Your task to perform on an android device: Search for a dining table on Crate & Barrel Image 0: 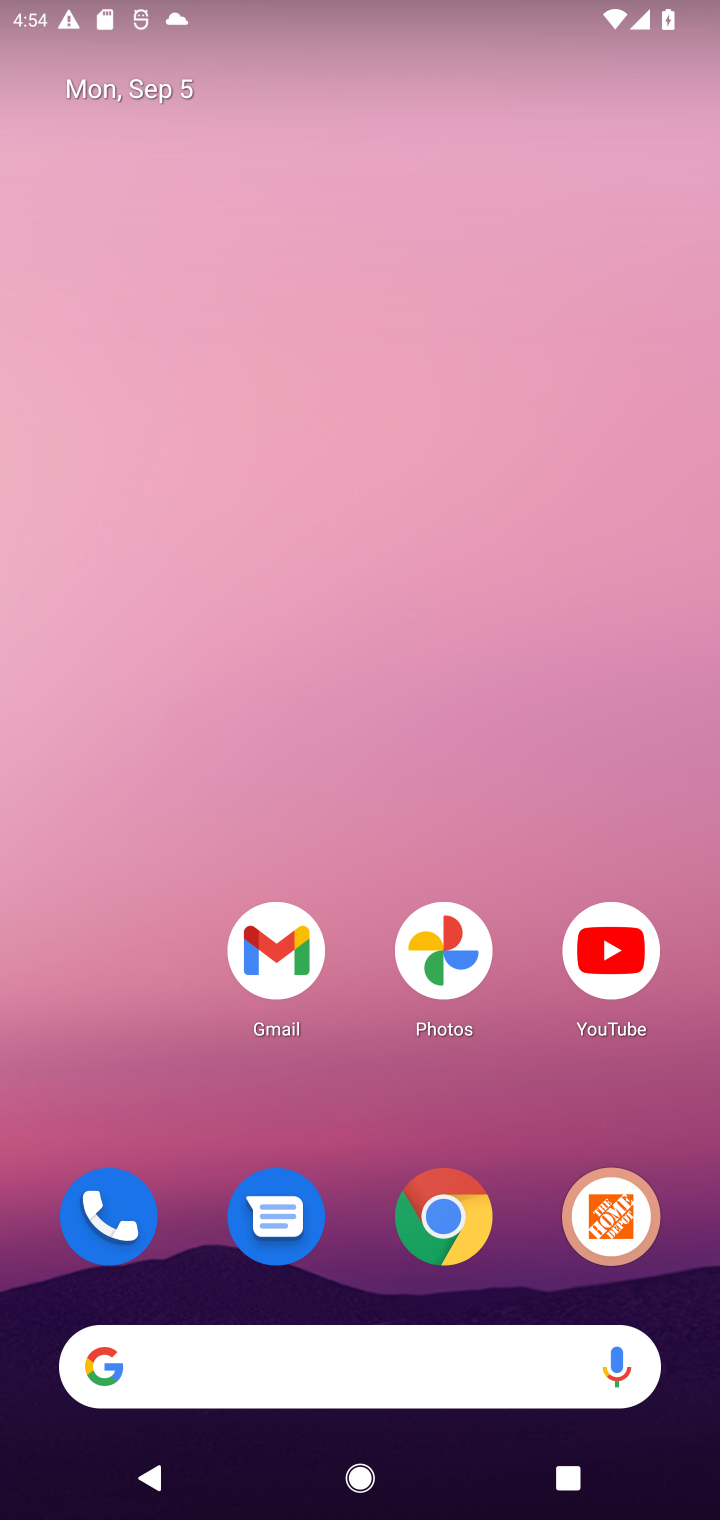
Step 0: press home button
Your task to perform on an android device: Search for a dining table on Crate & Barrel Image 1: 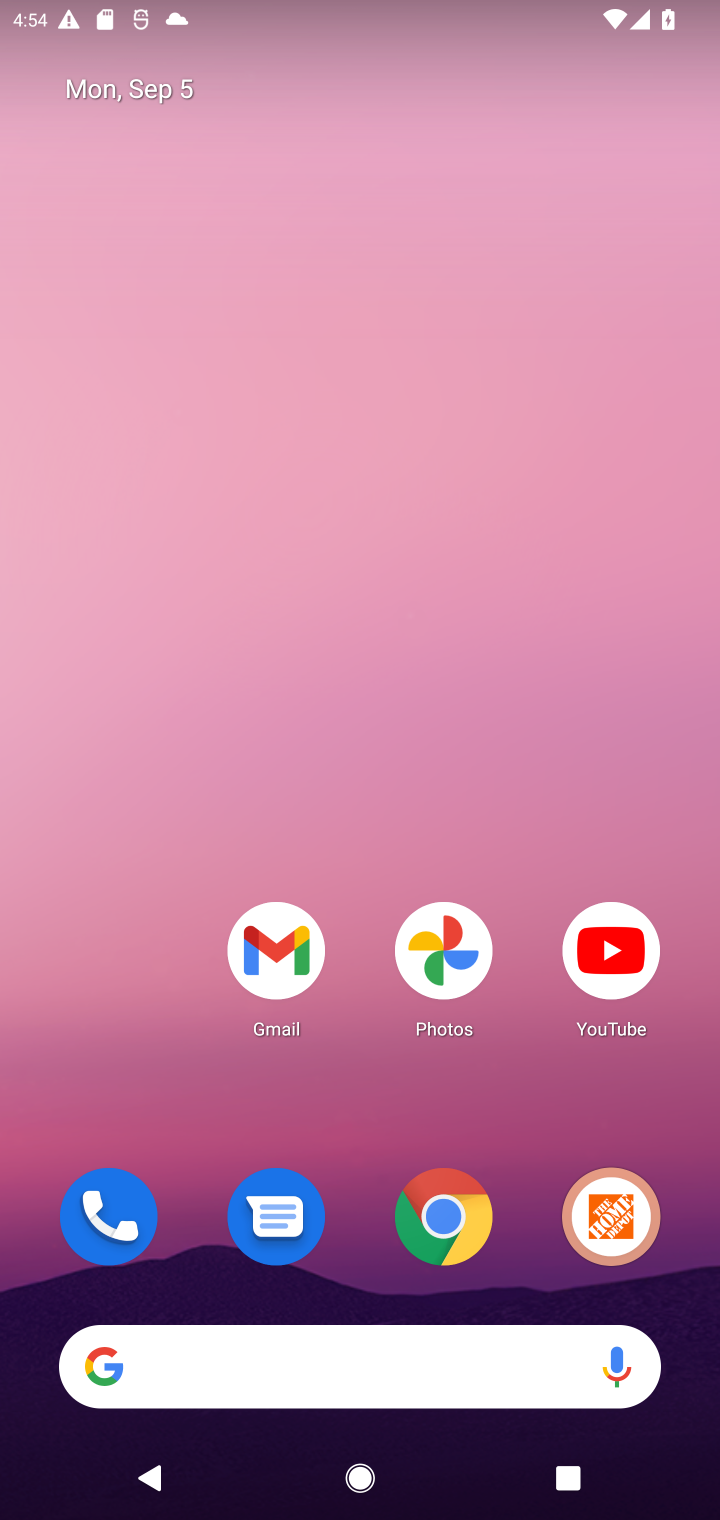
Step 1: click (92, 1364)
Your task to perform on an android device: Search for a dining table on Crate & Barrel Image 2: 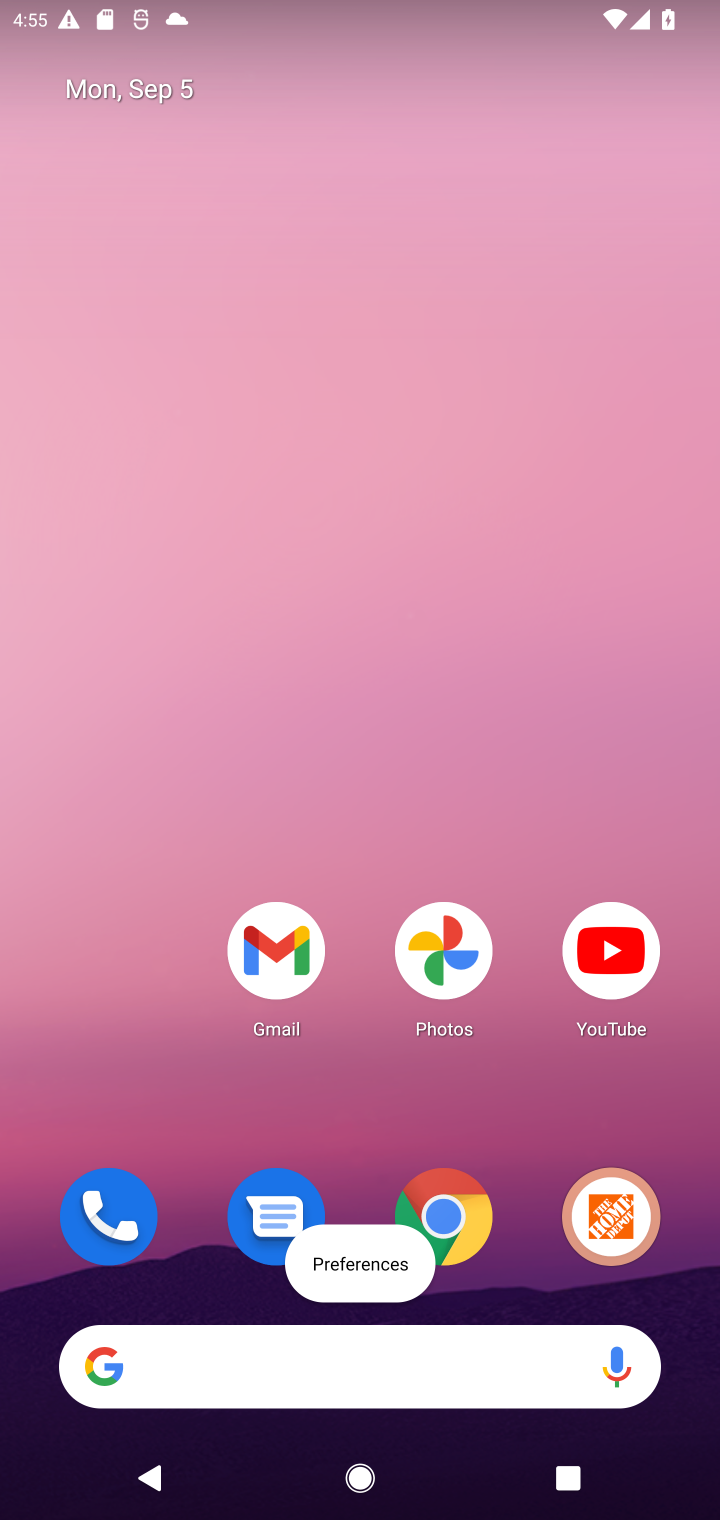
Step 2: click (92, 1364)
Your task to perform on an android device: Search for a dining table on Crate & Barrel Image 3: 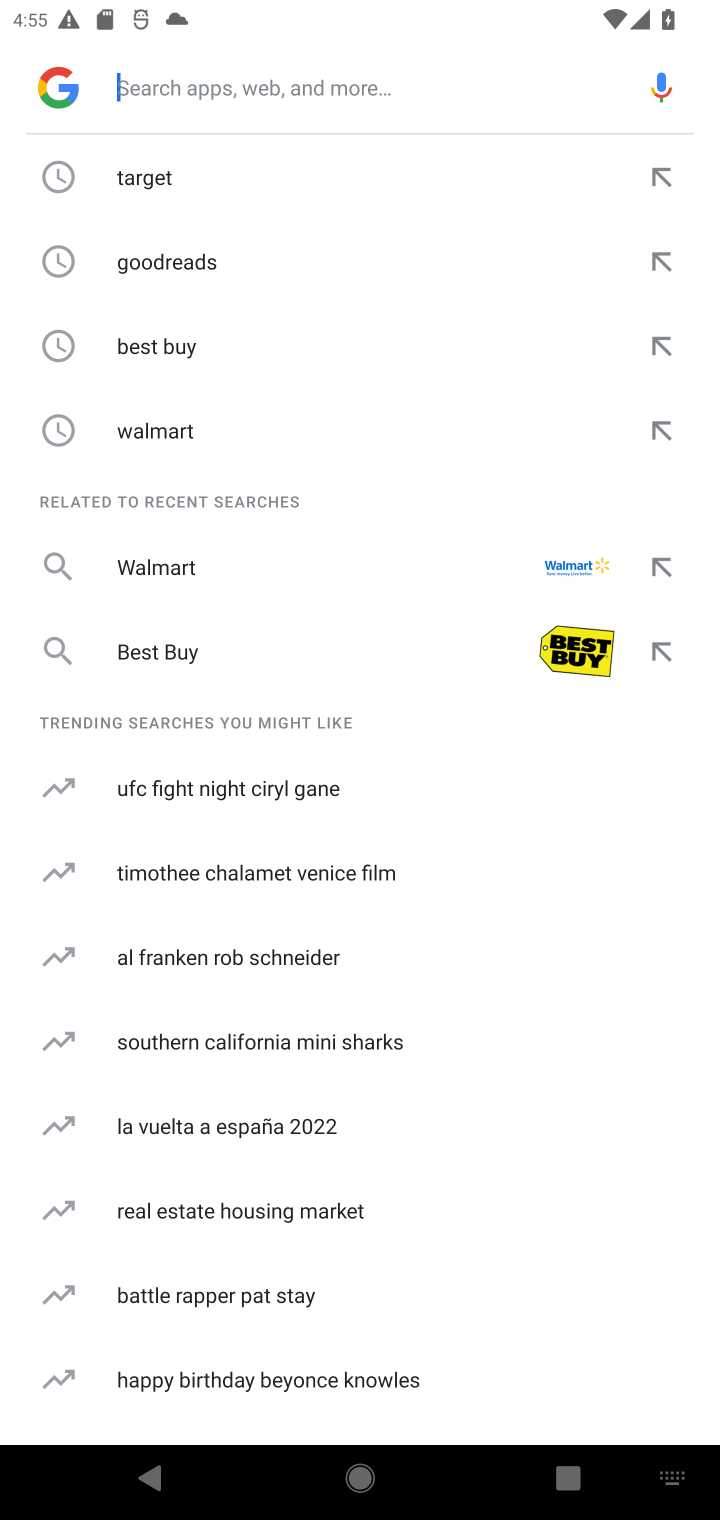
Step 3: click (92, 1364)
Your task to perform on an android device: Search for a dining table on Crate & Barrel Image 4: 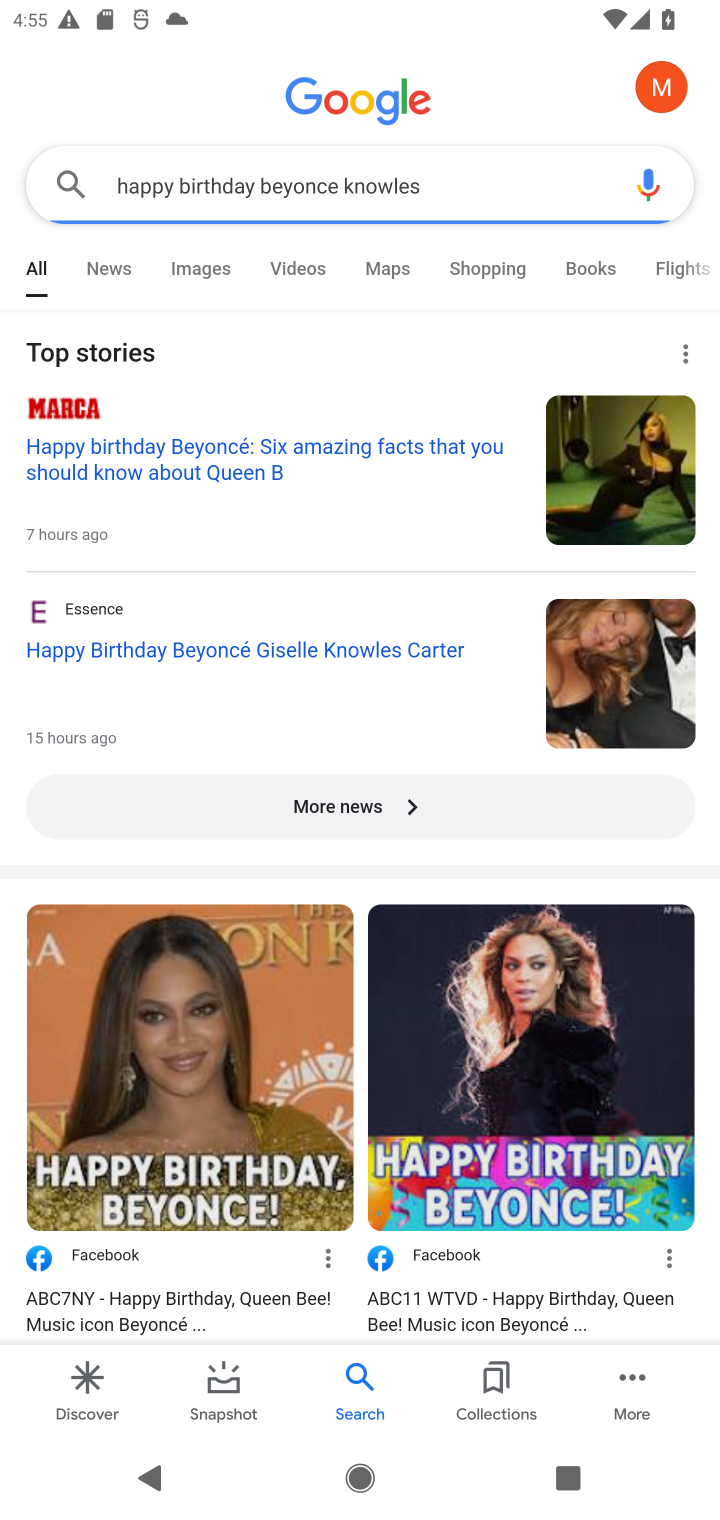
Step 4: press back button
Your task to perform on an android device: Search for a dining table on Crate & Barrel Image 5: 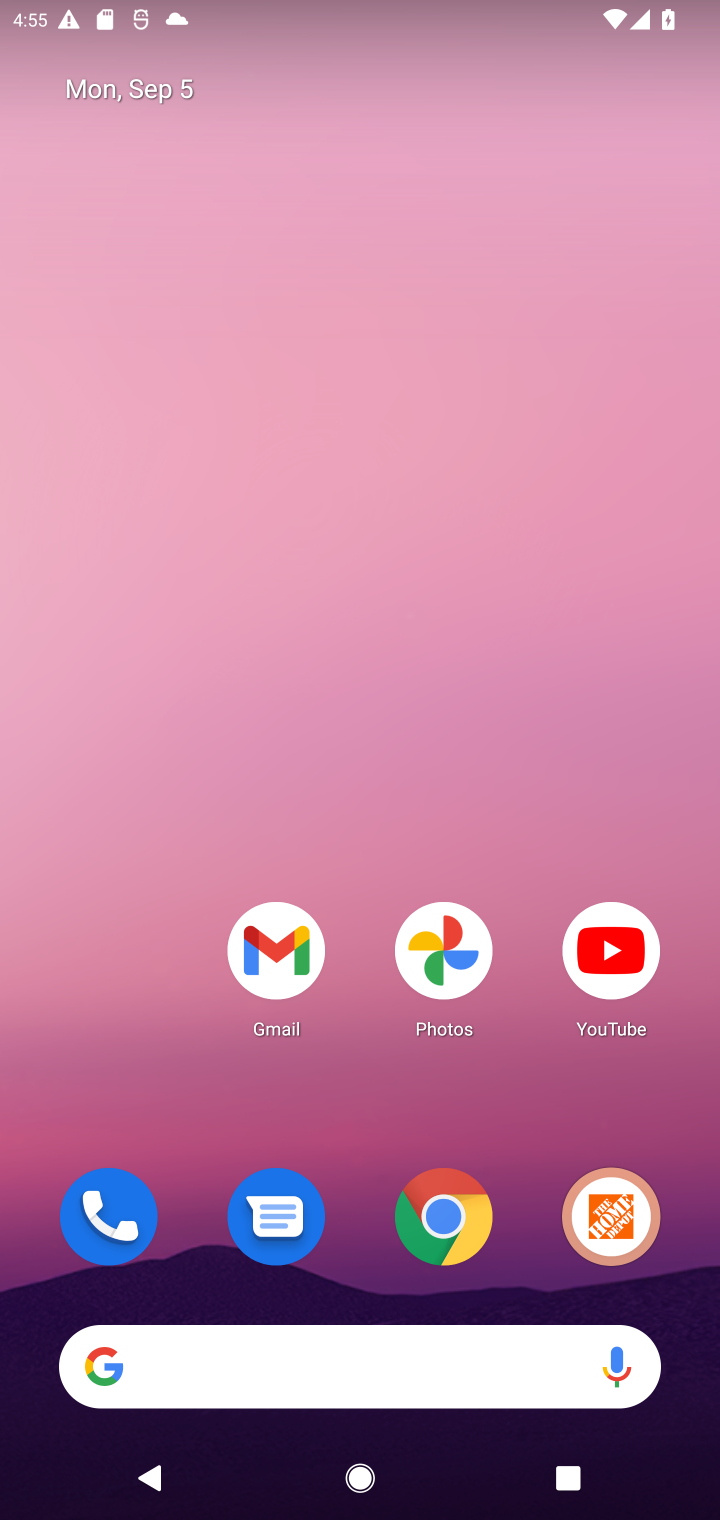
Step 5: click (94, 1364)
Your task to perform on an android device: Search for a dining table on Crate & Barrel Image 6: 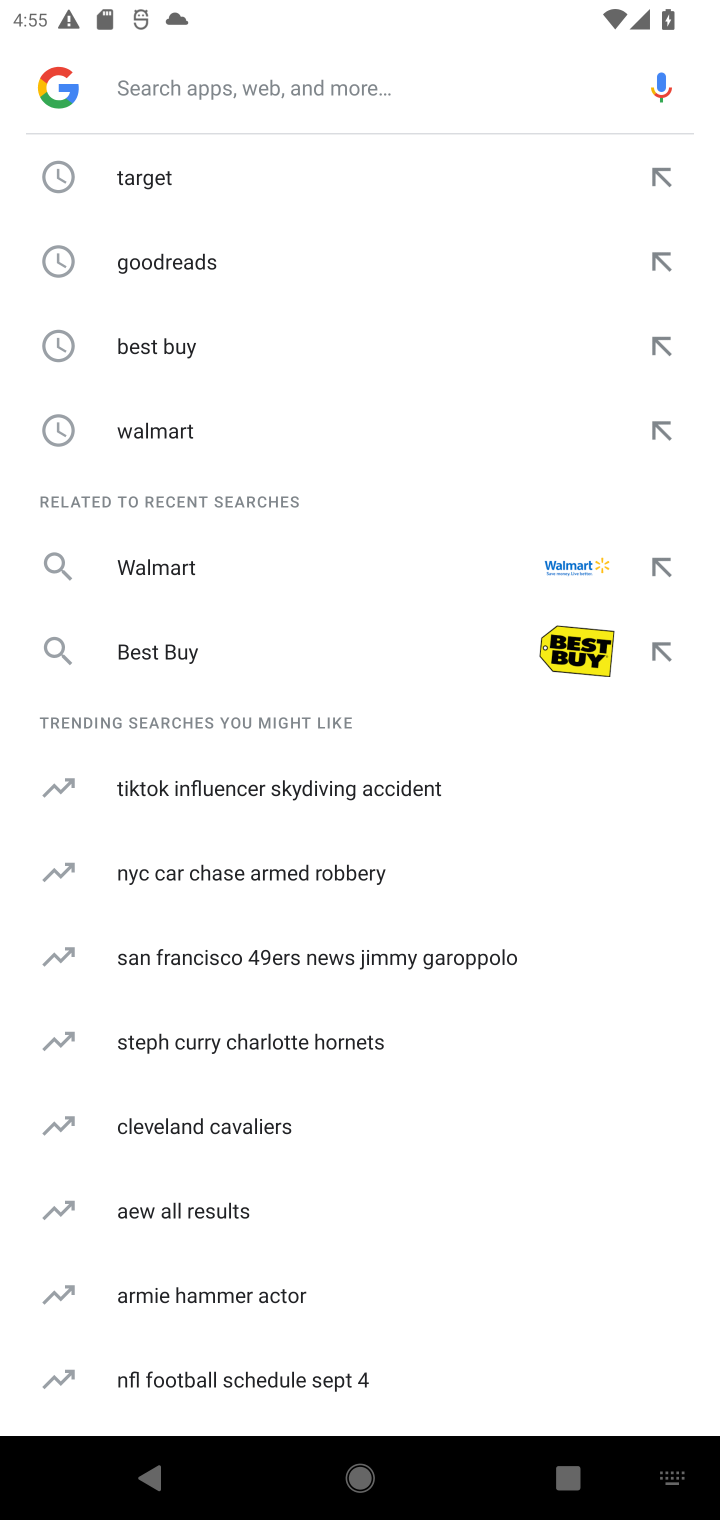
Step 6: type "dining table"
Your task to perform on an android device: Search for a dining table on Crate & Barrel Image 7: 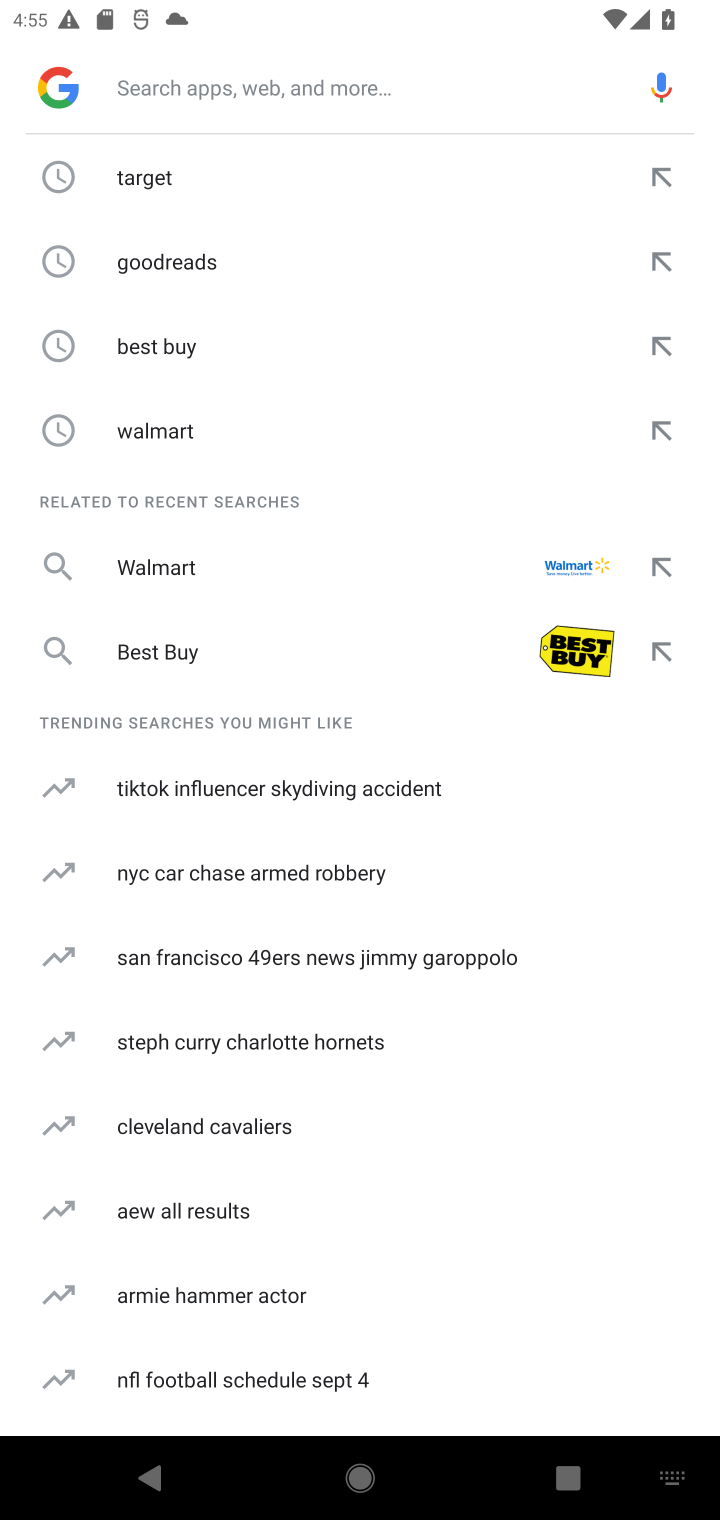
Step 7: click (189, 88)
Your task to perform on an android device: Search for a dining table on Crate & Barrel Image 8: 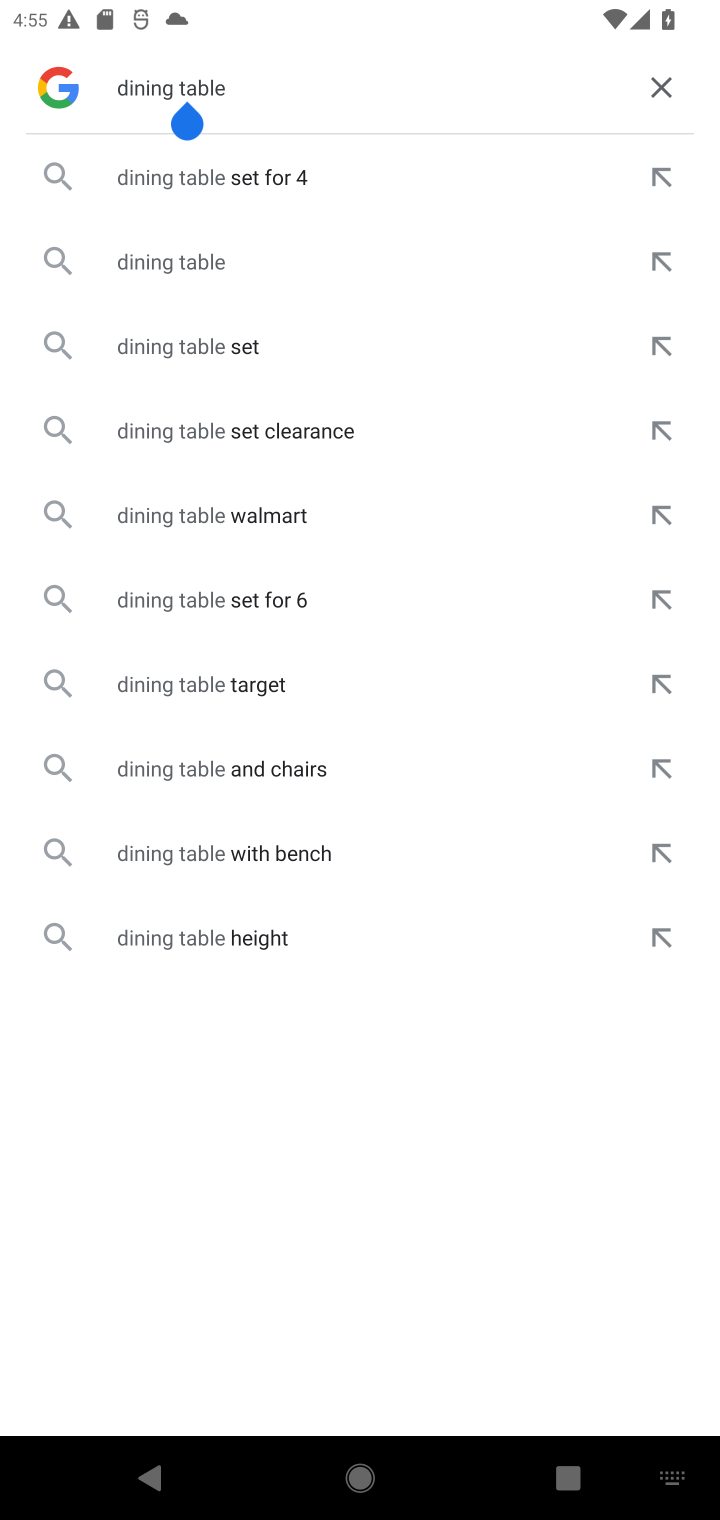
Step 8: press enter
Your task to perform on an android device: Search for a dining table on Crate & Barrel Image 9: 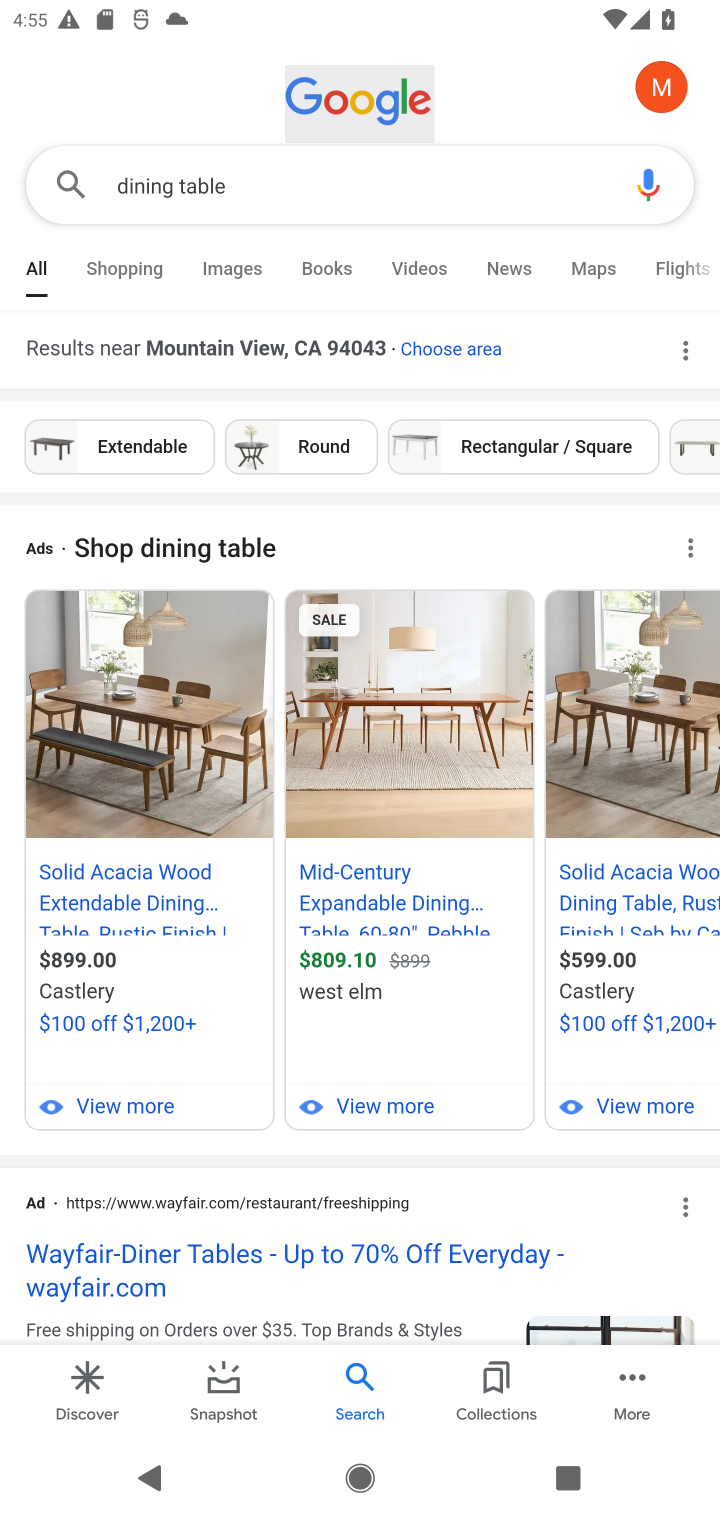
Step 9: drag from (540, 1208) to (282, 701)
Your task to perform on an android device: Search for a dining table on Crate & Barrel Image 10: 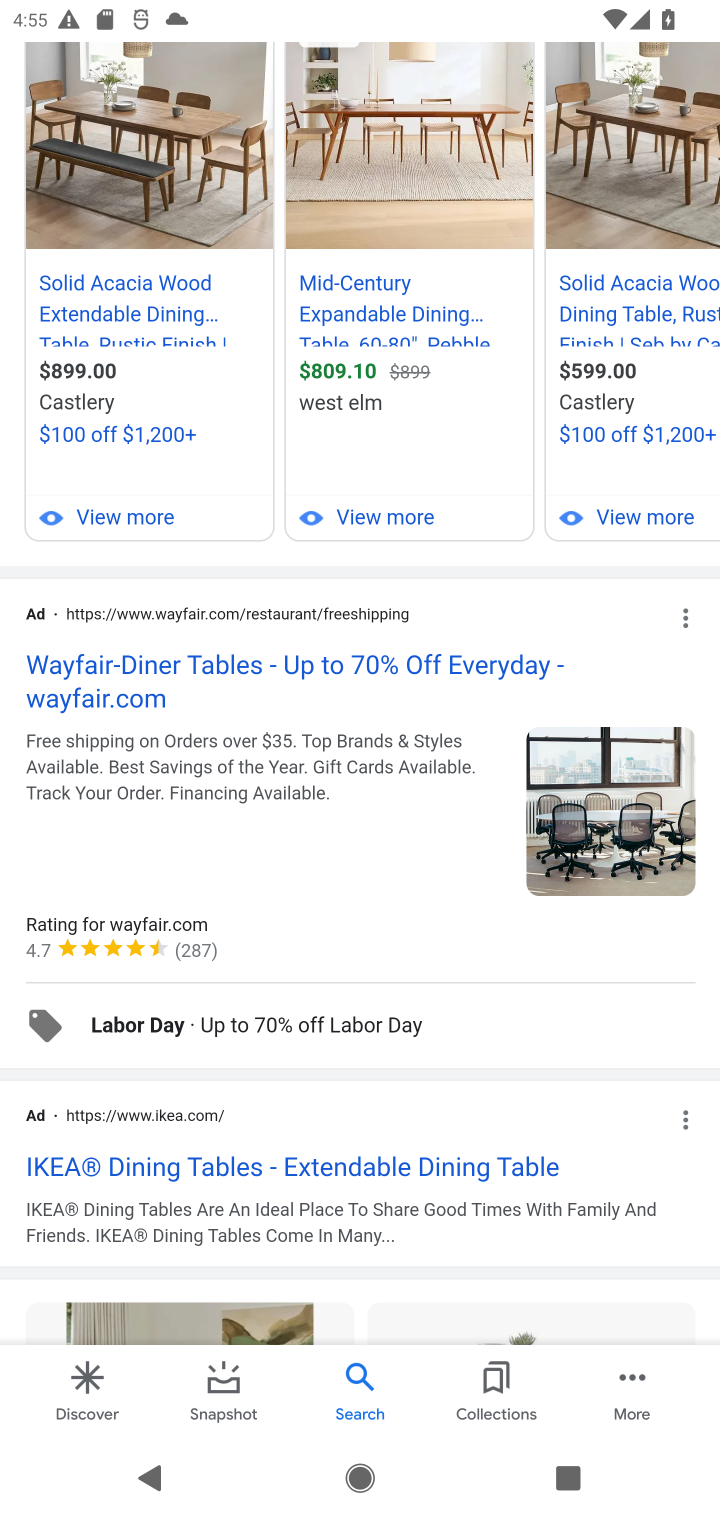
Step 10: drag from (368, 486) to (328, 78)
Your task to perform on an android device: Search for a dining table on Crate & Barrel Image 11: 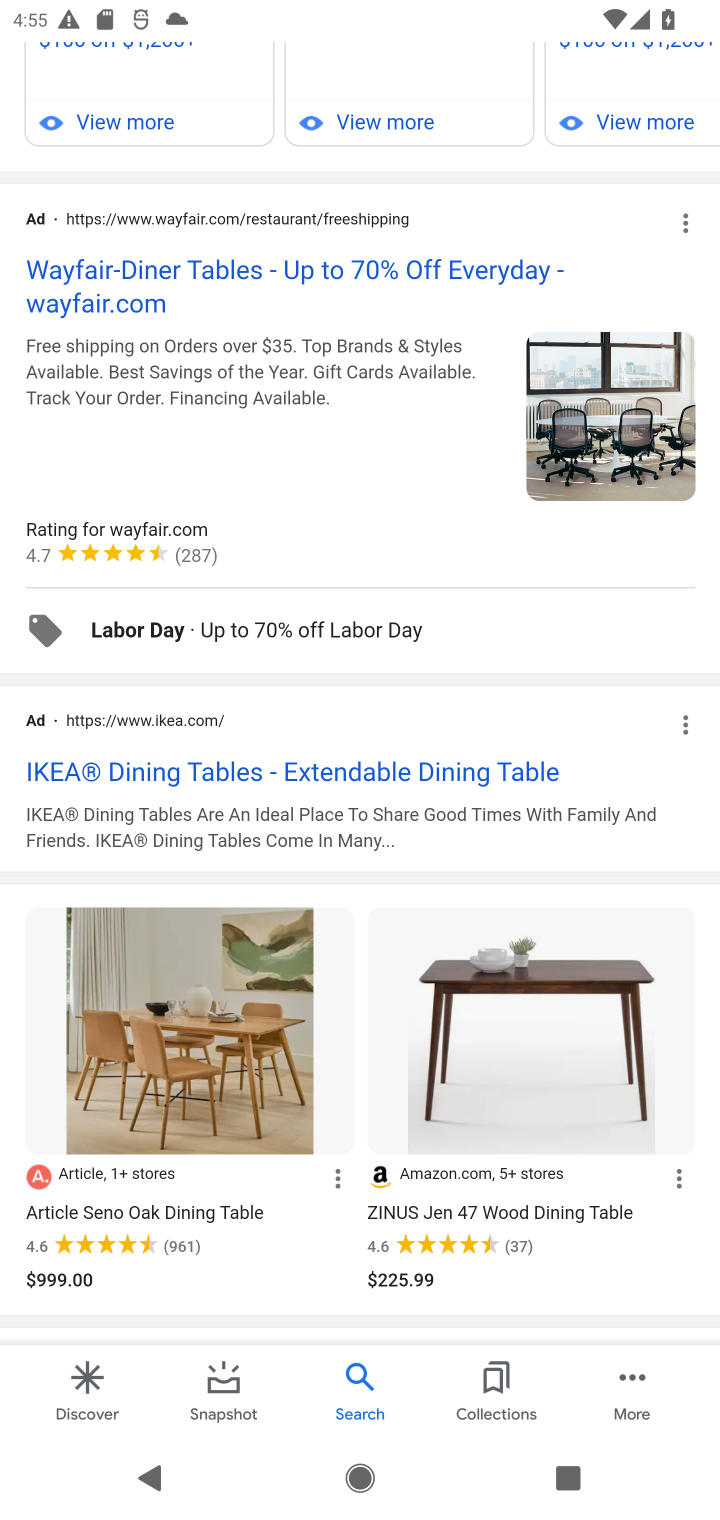
Step 11: click (332, 90)
Your task to perform on an android device: Search for a dining table on Crate & Barrel Image 12: 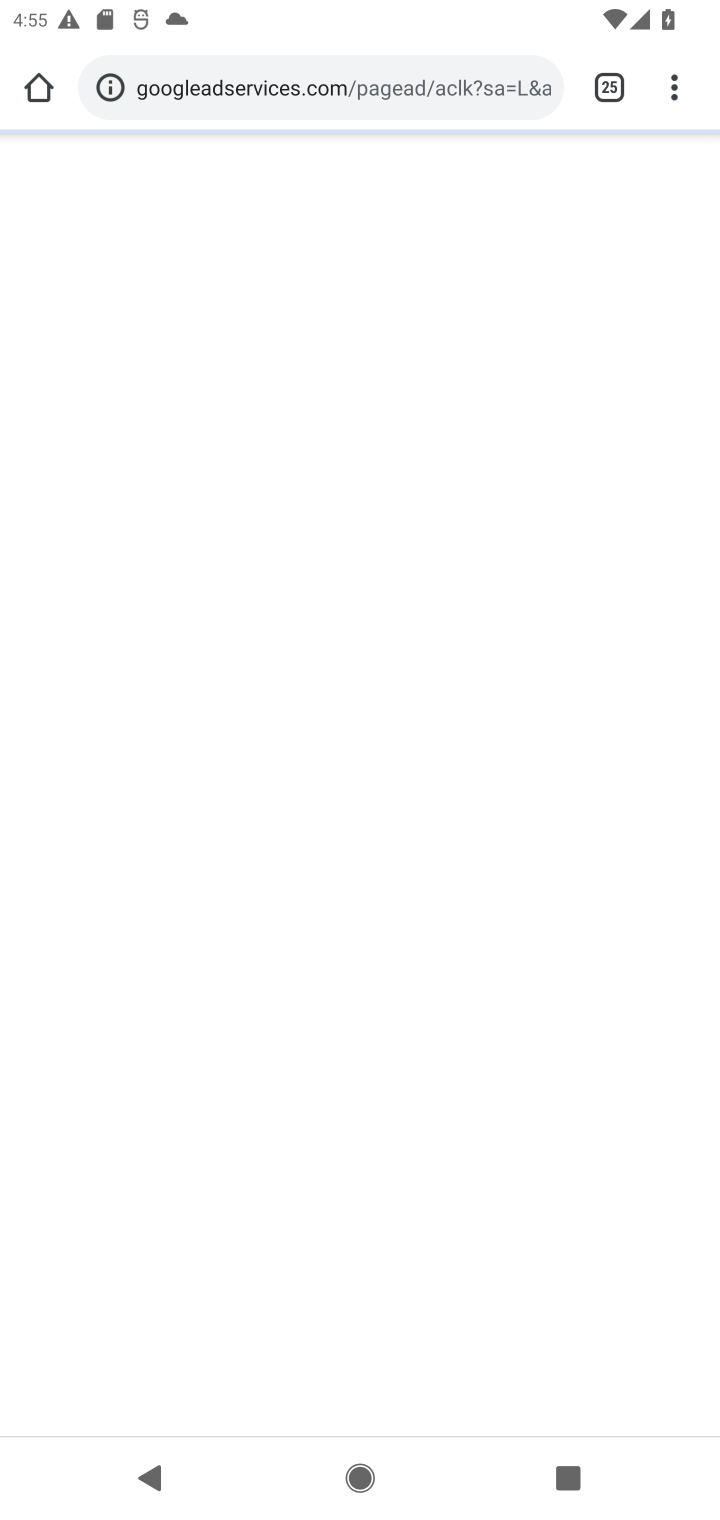
Step 12: press back button
Your task to perform on an android device: Search for a dining table on Crate & Barrel Image 13: 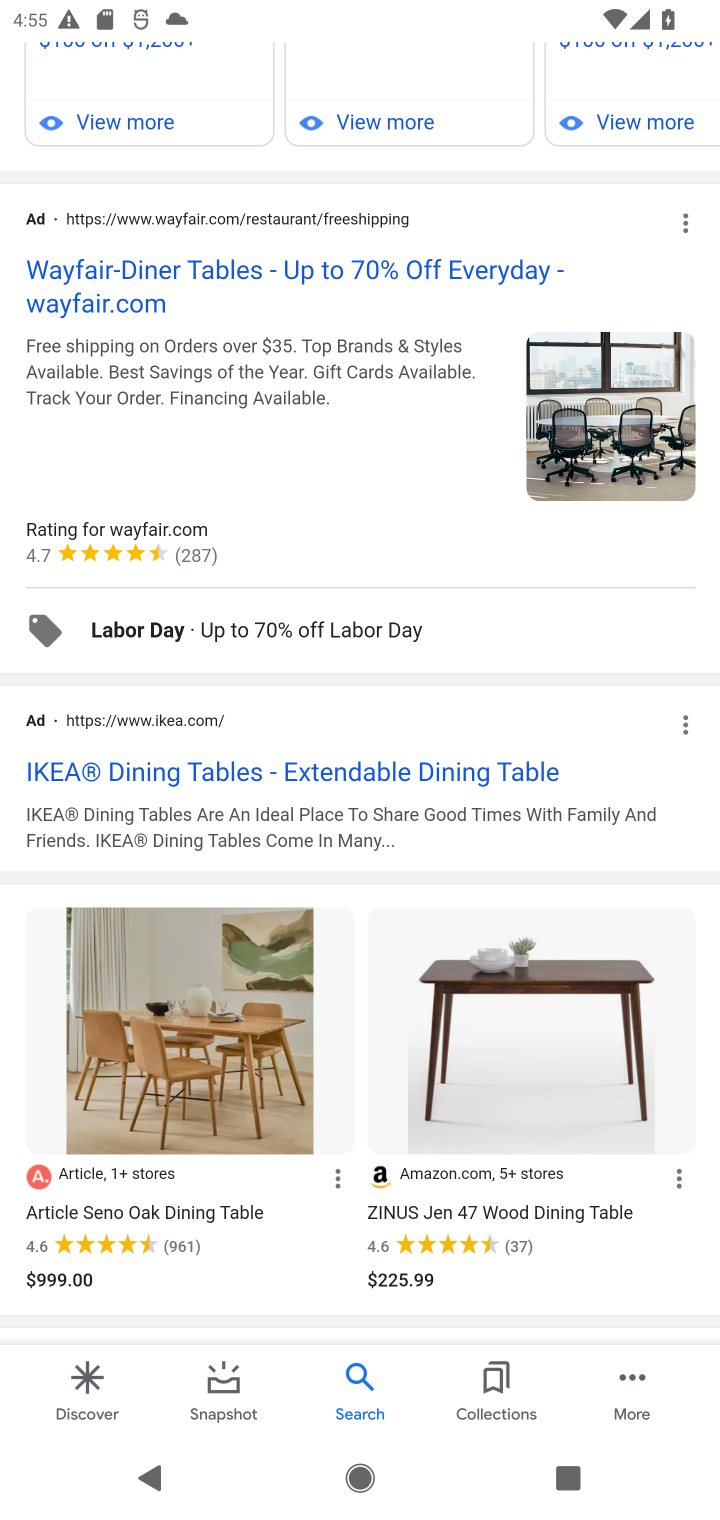
Step 13: click (365, 115)
Your task to perform on an android device: Search for a dining table on Crate & Barrel Image 14: 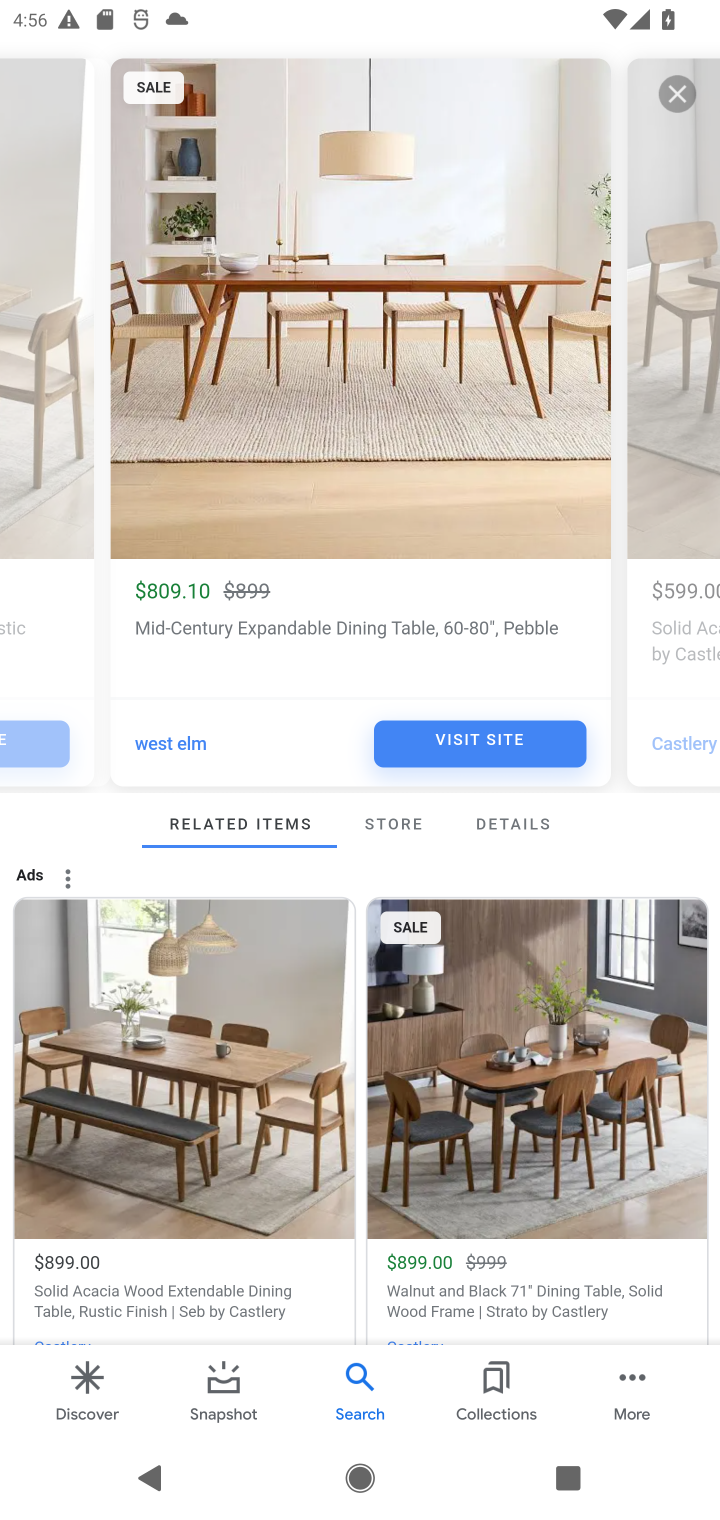
Step 14: press back button
Your task to perform on an android device: Search for a dining table on Crate & Barrel Image 15: 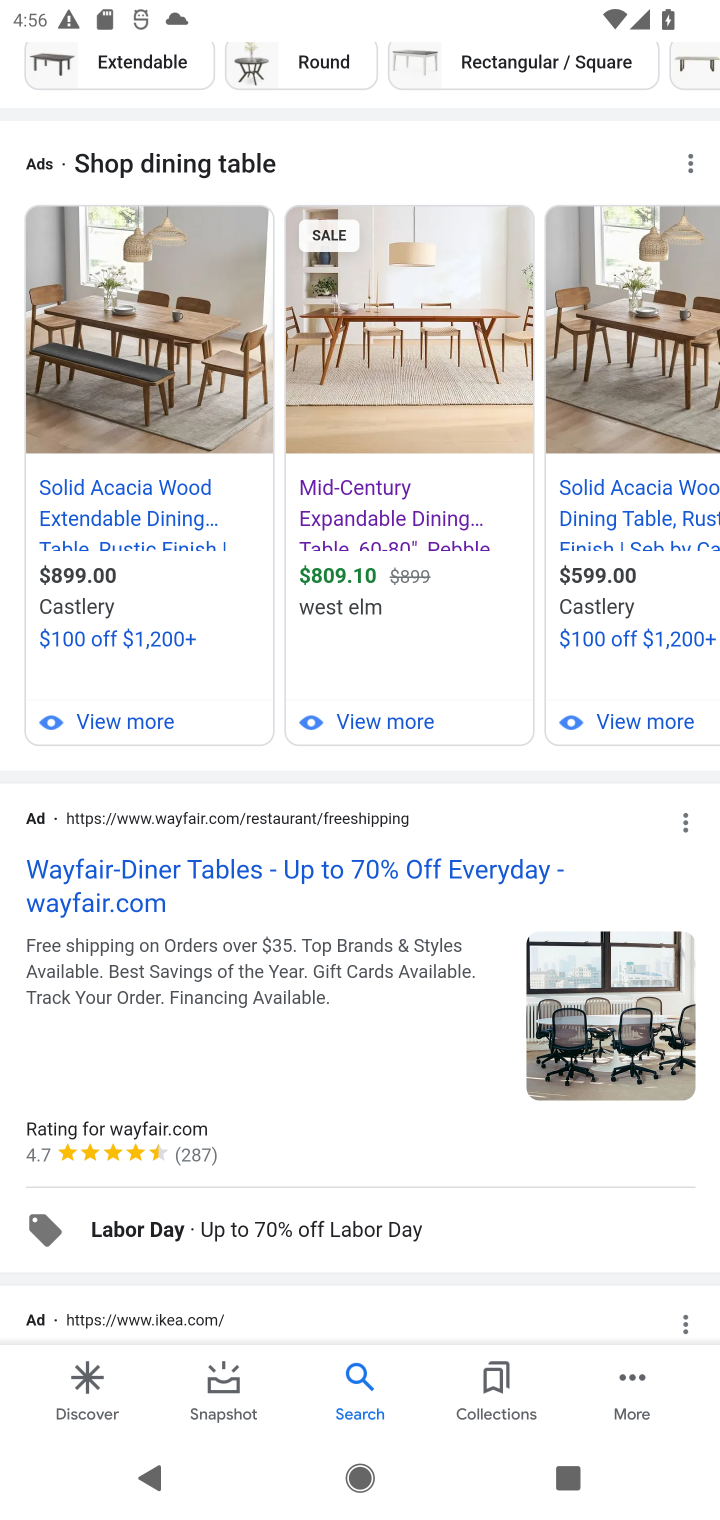
Step 15: drag from (285, 1136) to (259, 552)
Your task to perform on an android device: Search for a dining table on Crate & Barrel Image 16: 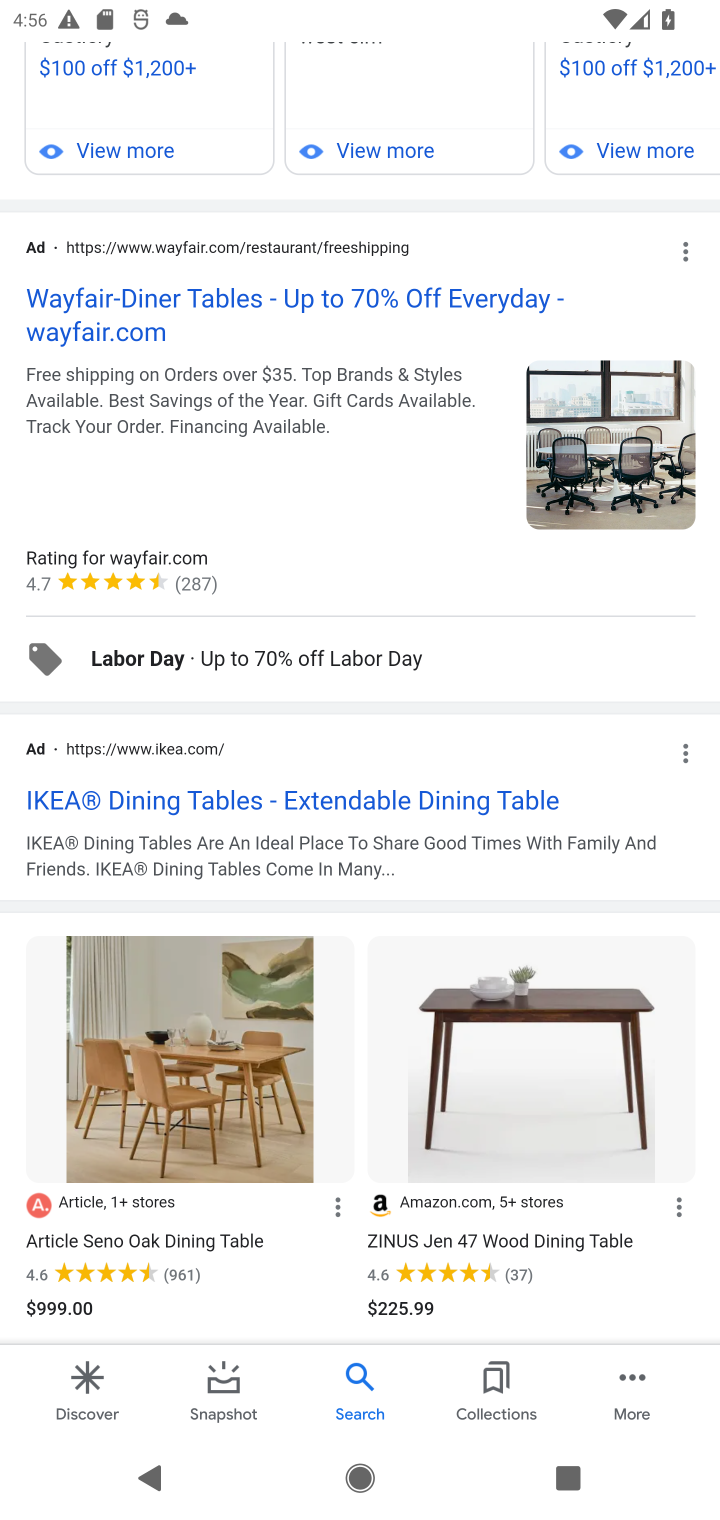
Step 16: drag from (303, 475) to (332, 1415)
Your task to perform on an android device: Search for a dining table on Crate & Barrel Image 17: 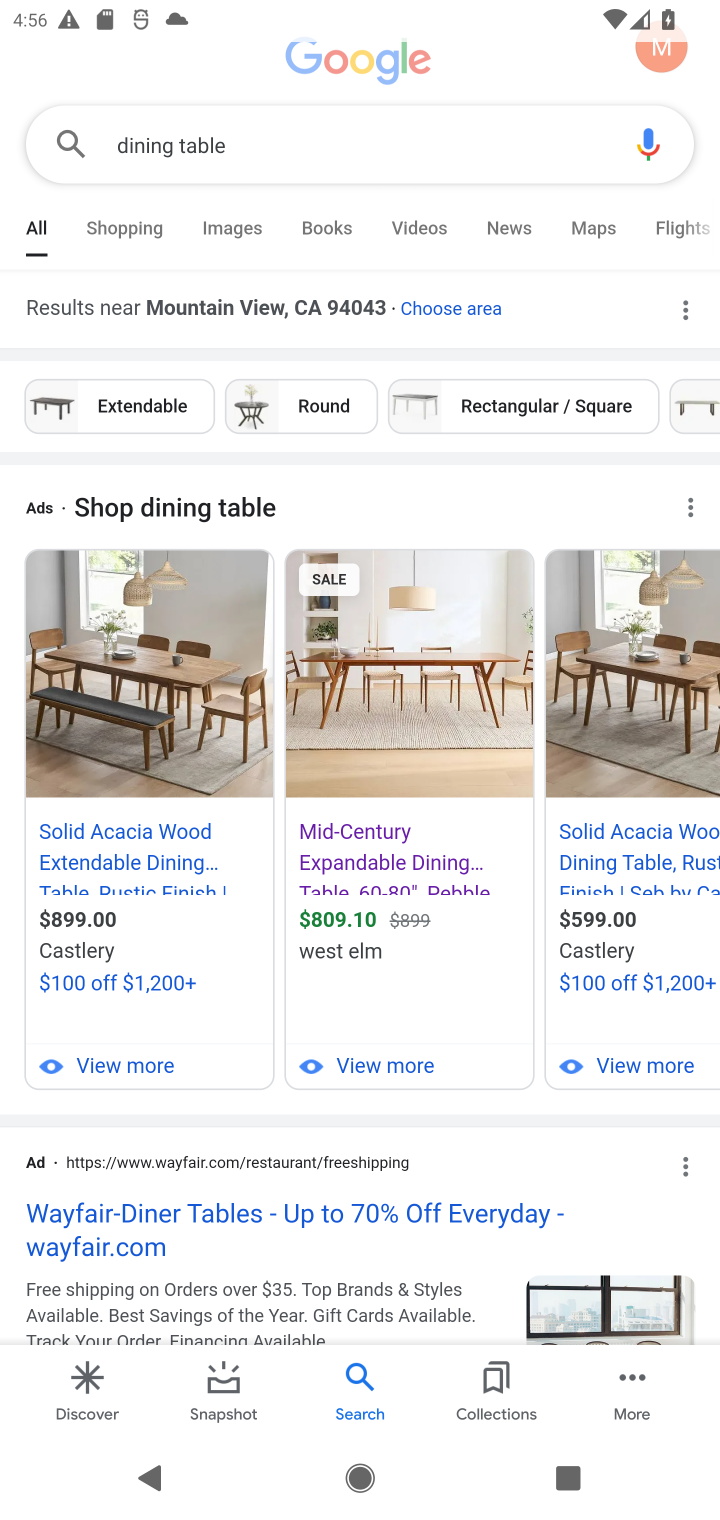
Step 17: drag from (292, 1062) to (252, 117)
Your task to perform on an android device: Search for a dining table on Crate & Barrel Image 18: 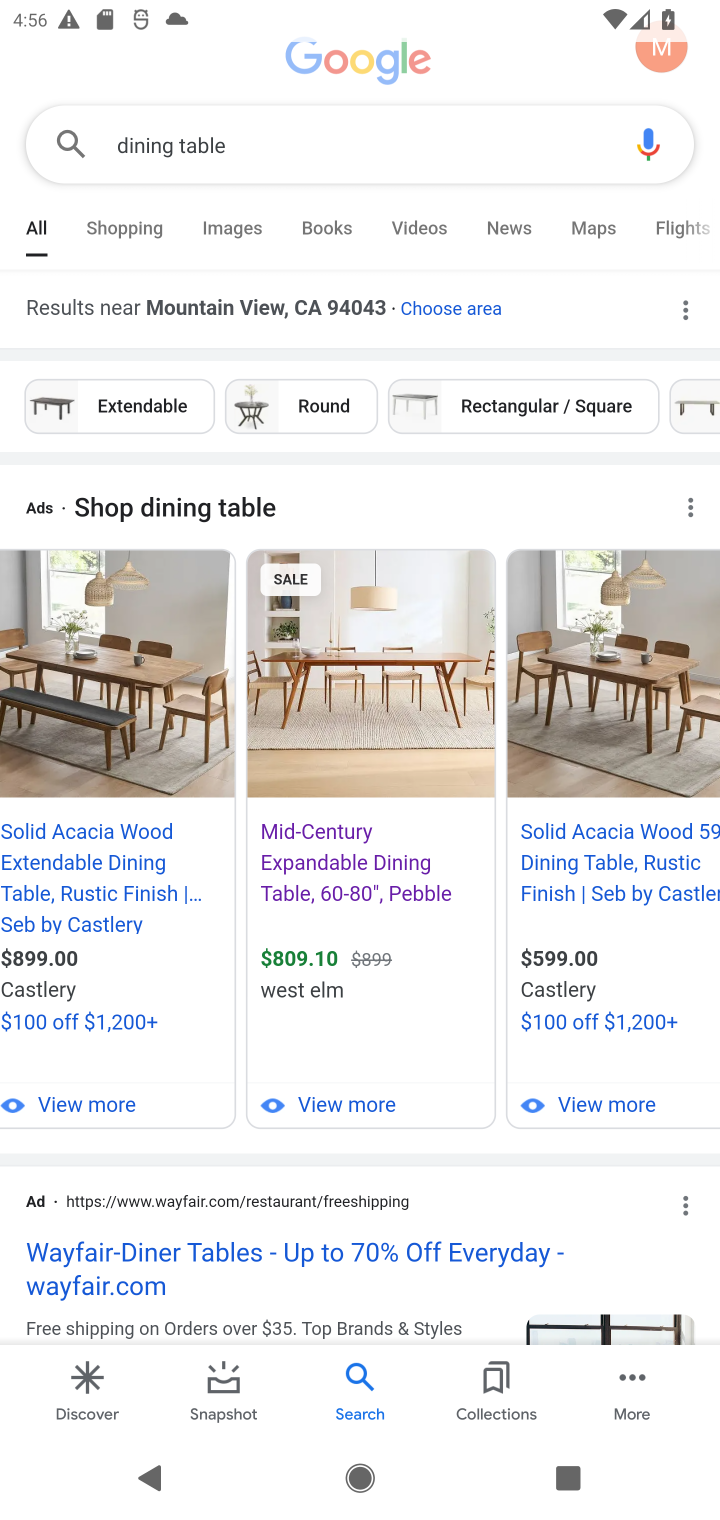
Step 18: click (490, 260)
Your task to perform on an android device: Search for a dining table on Crate & Barrel Image 19: 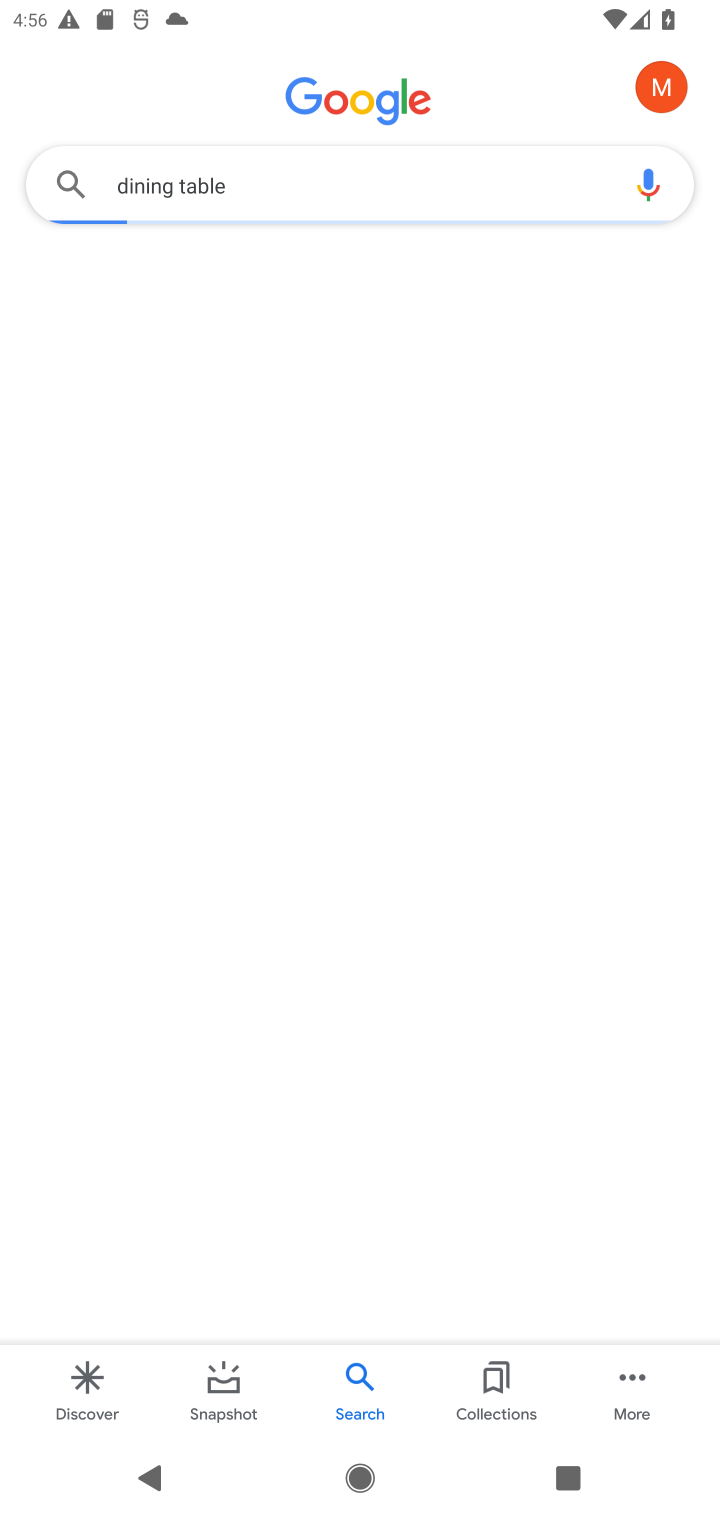
Step 19: drag from (604, 1264) to (556, 755)
Your task to perform on an android device: Search for a dining table on Crate & Barrel Image 20: 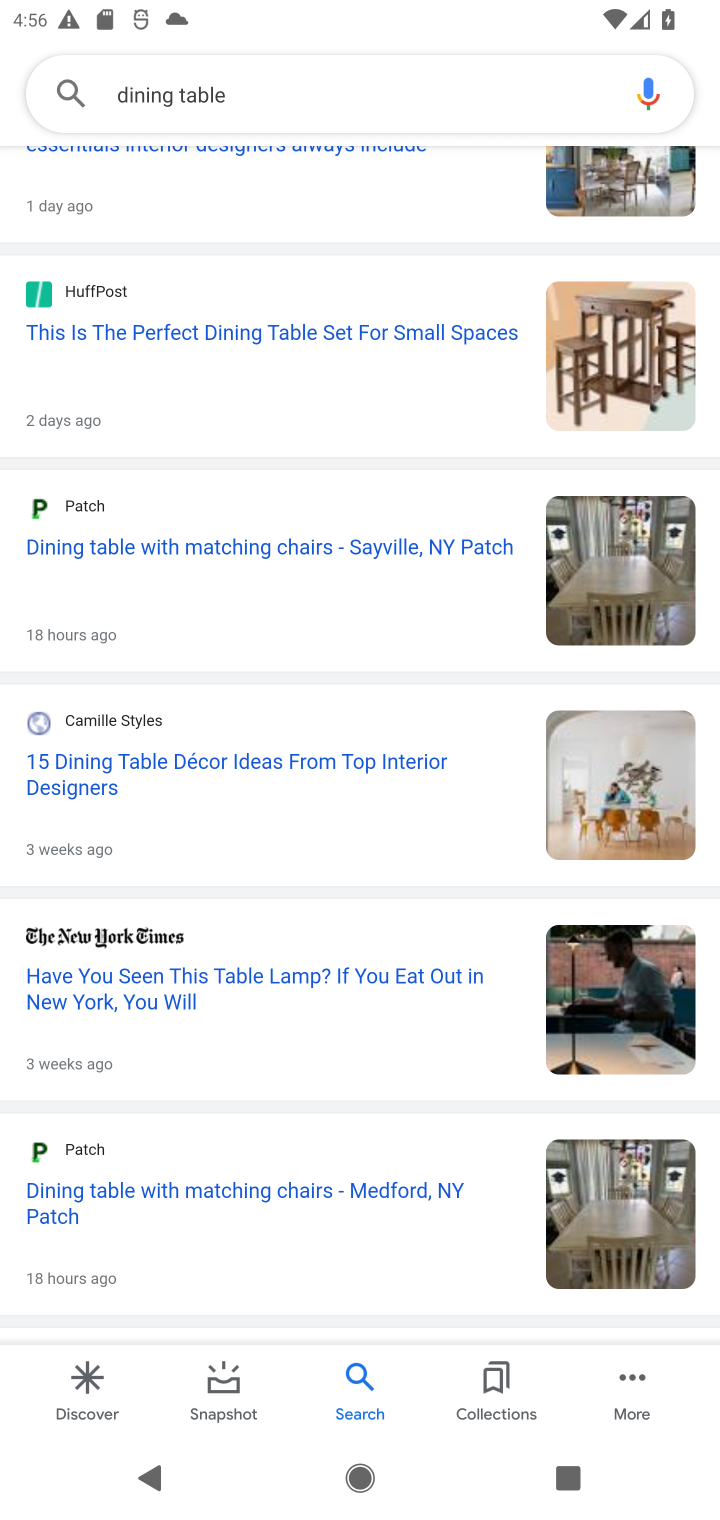
Step 20: click (244, 91)
Your task to perform on an android device: Search for a dining table on Crate & Barrel Image 21: 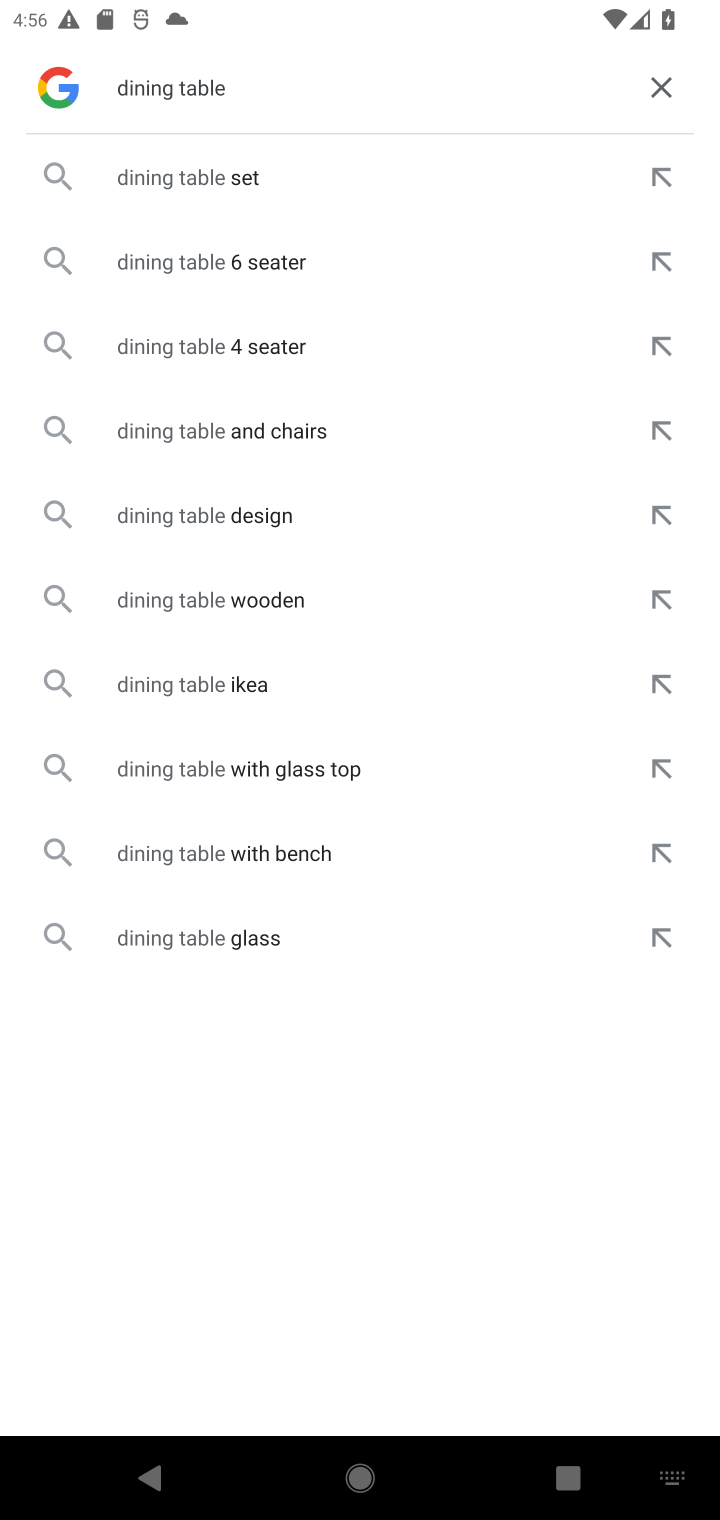
Step 21: task complete